Your task to perform on an android device: Open Google Chrome and click the shortcut for Amazon.com Image 0: 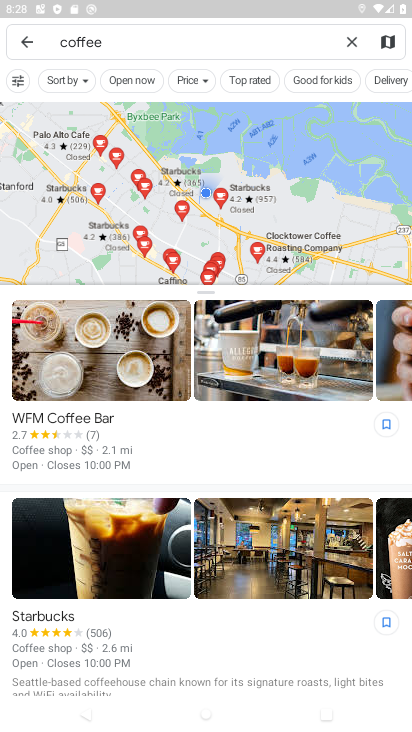
Step 0: press home button
Your task to perform on an android device: Open Google Chrome and click the shortcut for Amazon.com Image 1: 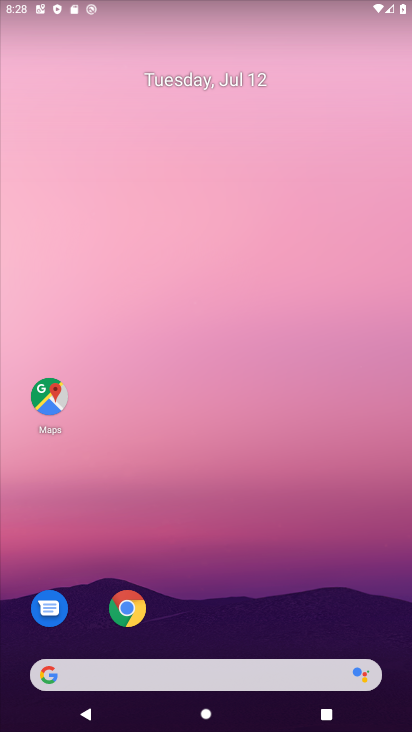
Step 1: click (124, 605)
Your task to perform on an android device: Open Google Chrome and click the shortcut for Amazon.com Image 2: 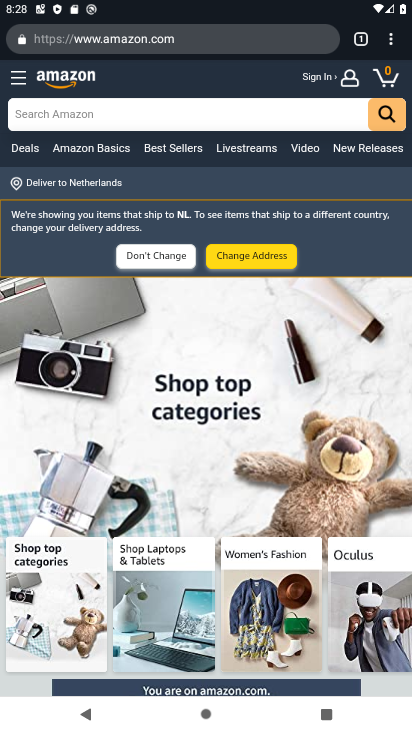
Step 2: task complete